Your task to perform on an android device: see sites visited before in the chrome app Image 0: 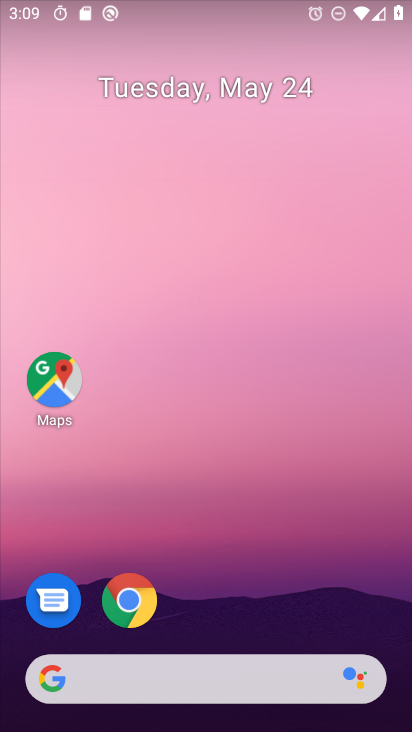
Step 0: drag from (232, 617) to (328, 155)
Your task to perform on an android device: see sites visited before in the chrome app Image 1: 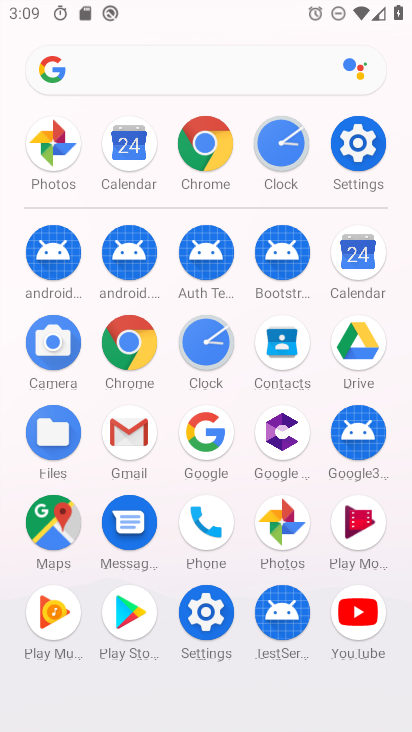
Step 1: click (194, 143)
Your task to perform on an android device: see sites visited before in the chrome app Image 2: 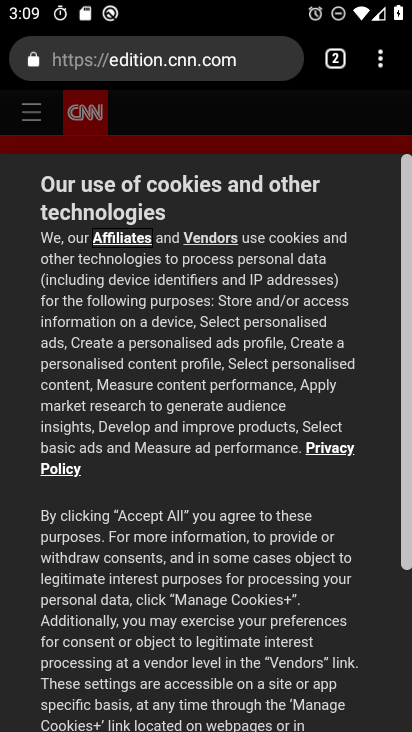
Step 2: click (386, 53)
Your task to perform on an android device: see sites visited before in the chrome app Image 3: 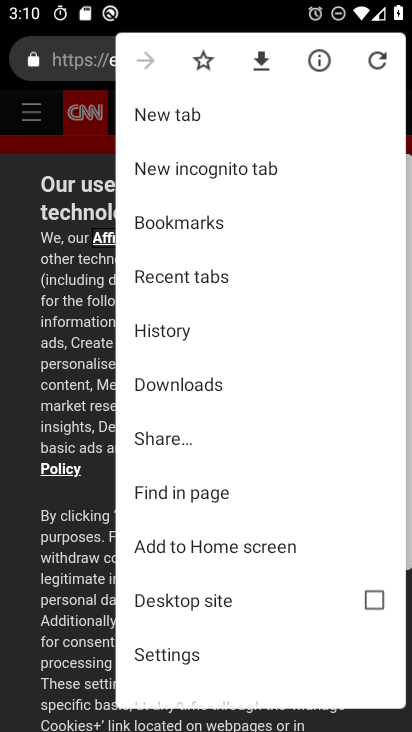
Step 3: click (185, 332)
Your task to perform on an android device: see sites visited before in the chrome app Image 4: 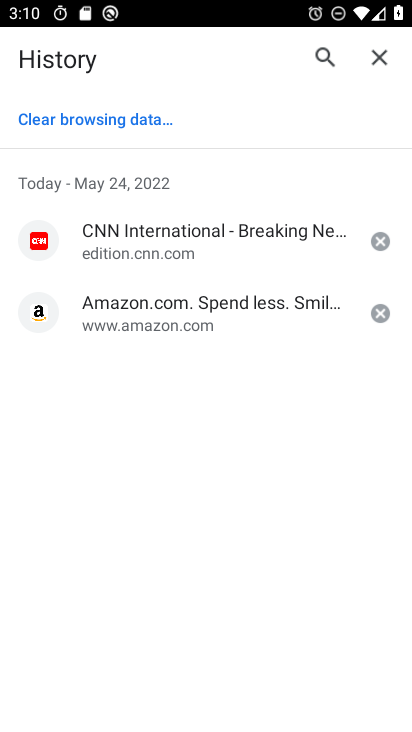
Step 4: task complete